Your task to perform on an android device: clear all cookies in the chrome app Image 0: 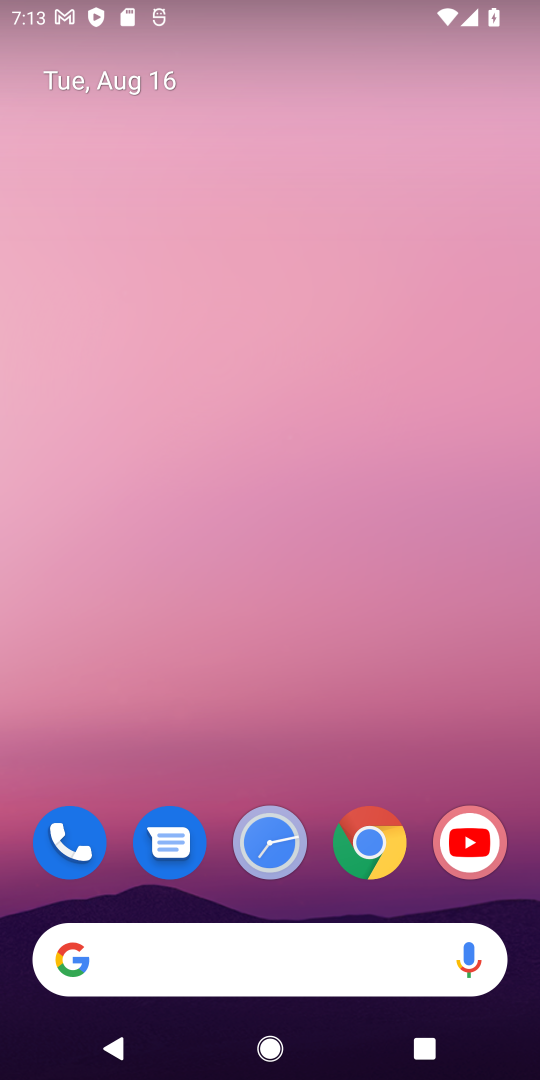
Step 0: press home button
Your task to perform on an android device: clear all cookies in the chrome app Image 1: 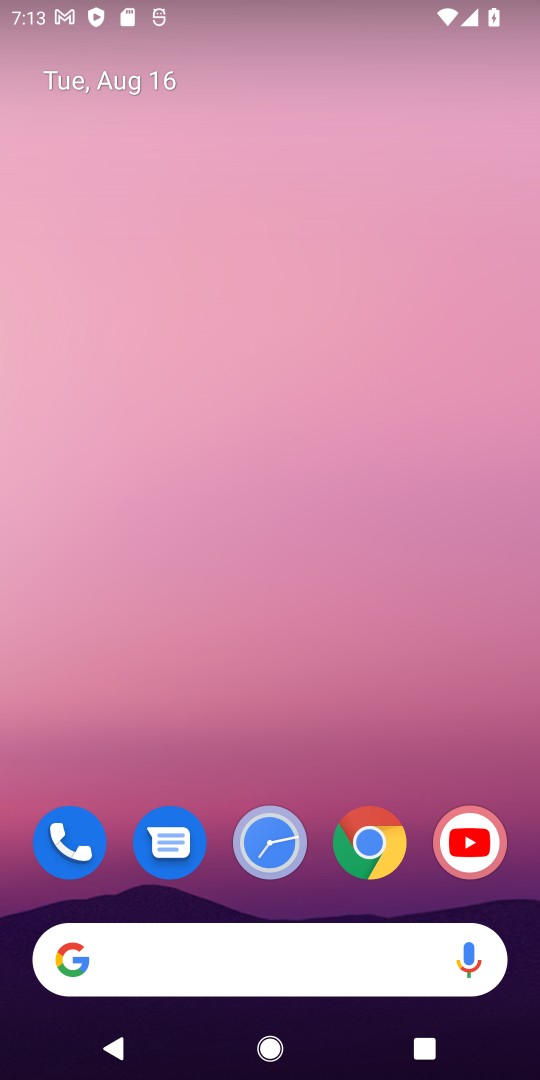
Step 1: drag from (317, 790) to (315, 2)
Your task to perform on an android device: clear all cookies in the chrome app Image 2: 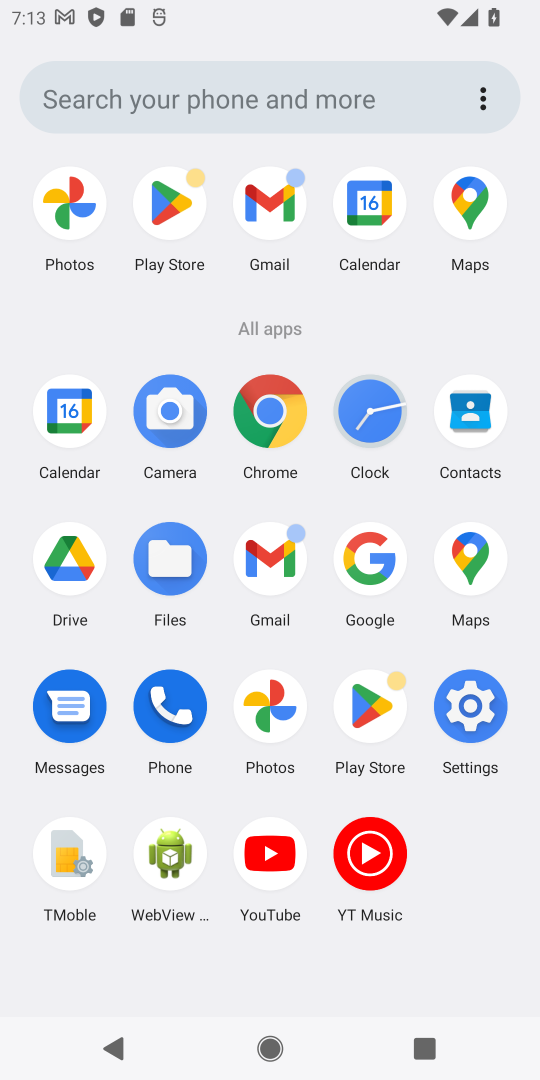
Step 2: click (269, 406)
Your task to perform on an android device: clear all cookies in the chrome app Image 3: 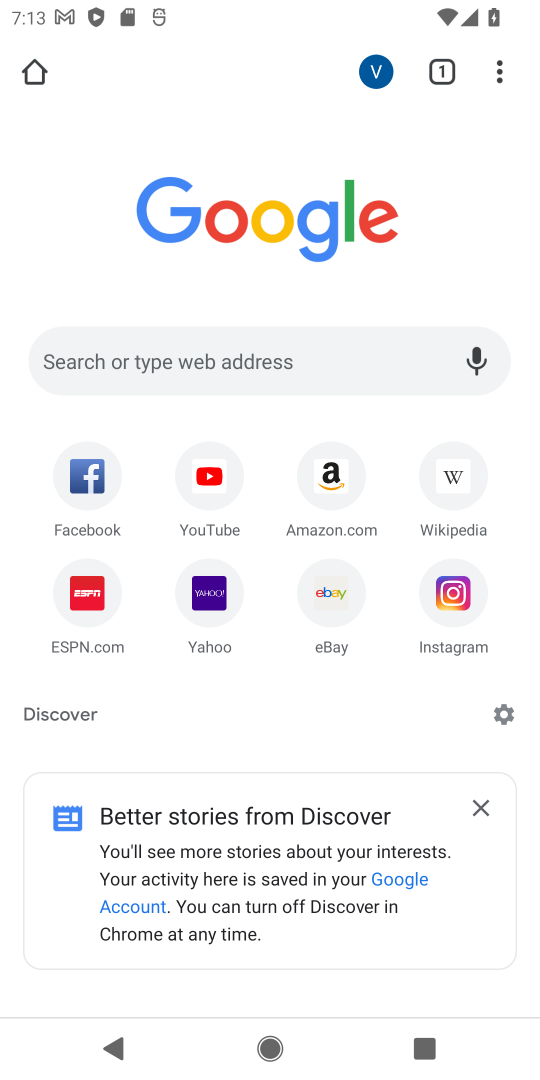
Step 3: click (501, 62)
Your task to perform on an android device: clear all cookies in the chrome app Image 4: 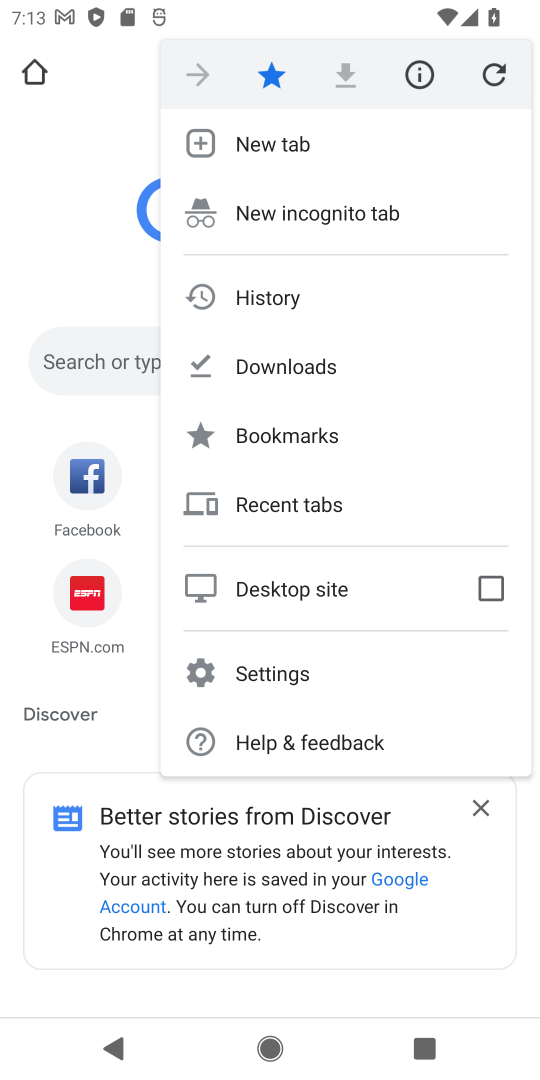
Step 4: click (305, 291)
Your task to perform on an android device: clear all cookies in the chrome app Image 5: 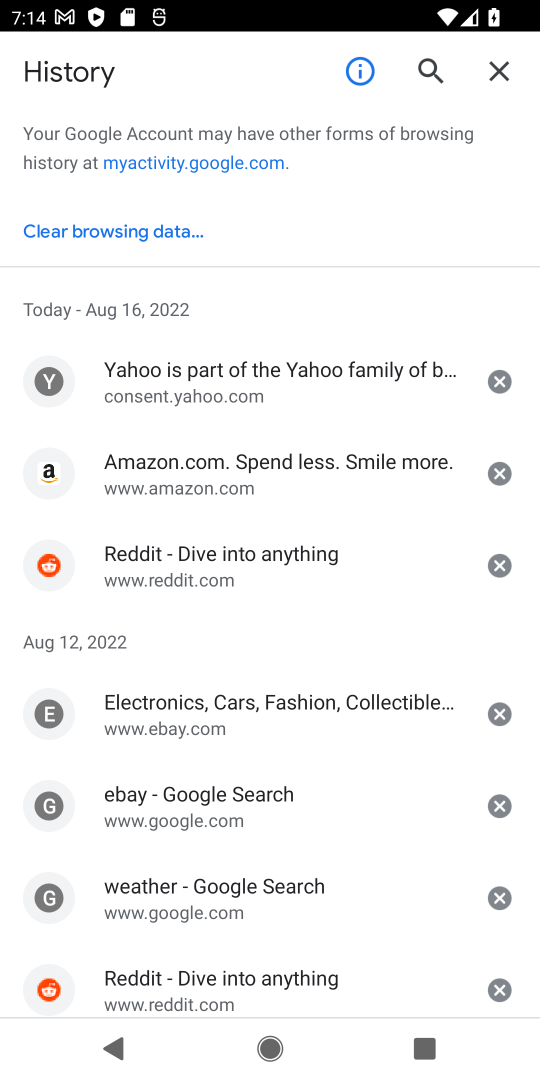
Step 5: click (89, 232)
Your task to perform on an android device: clear all cookies in the chrome app Image 6: 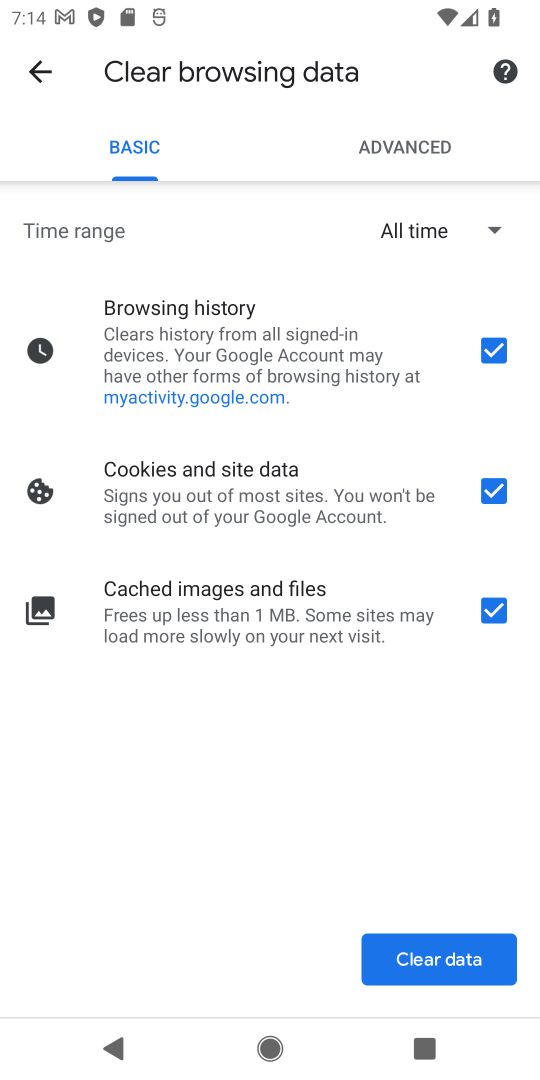
Step 6: click (497, 350)
Your task to perform on an android device: clear all cookies in the chrome app Image 7: 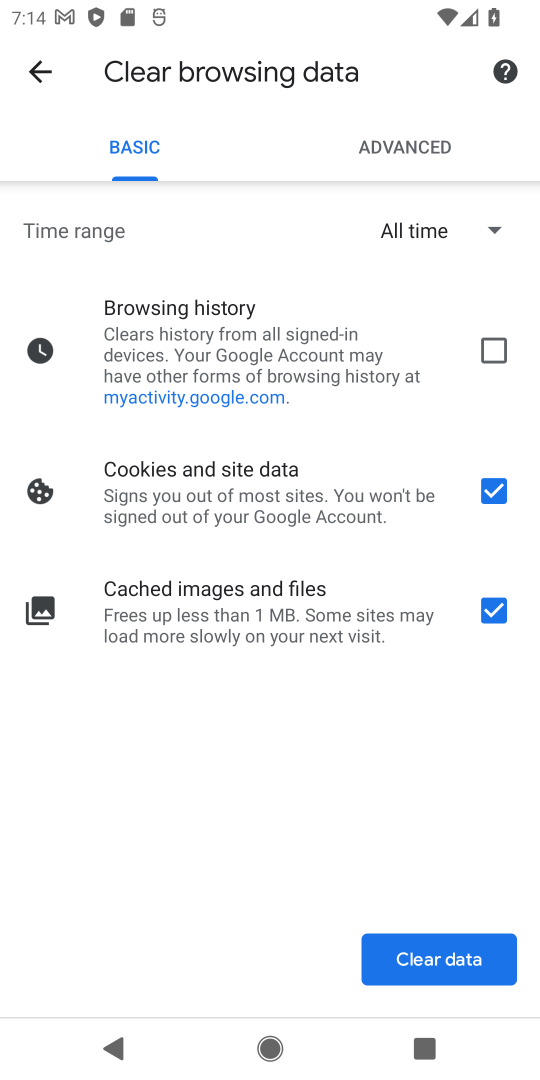
Step 7: click (499, 606)
Your task to perform on an android device: clear all cookies in the chrome app Image 8: 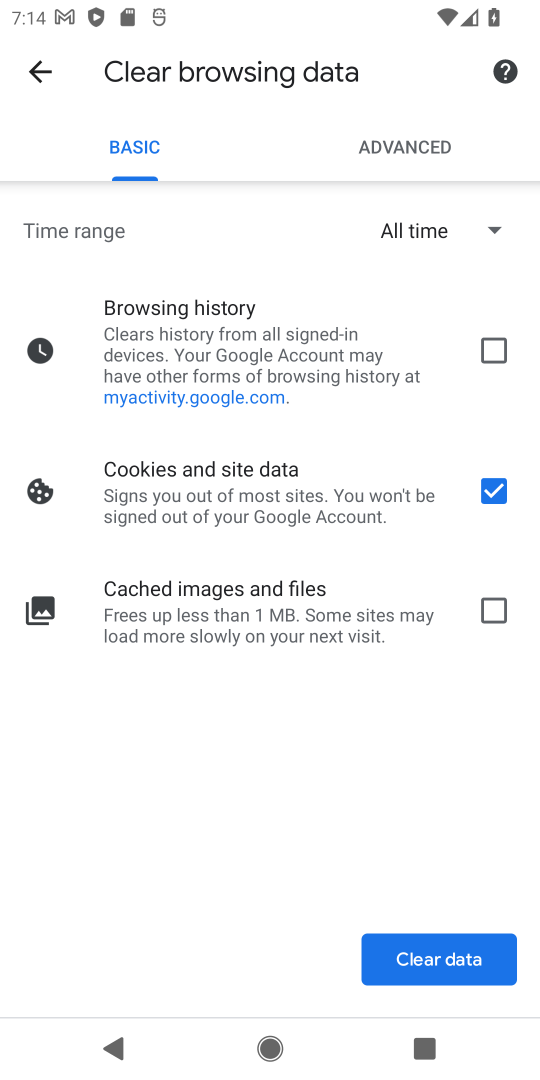
Step 8: click (436, 964)
Your task to perform on an android device: clear all cookies in the chrome app Image 9: 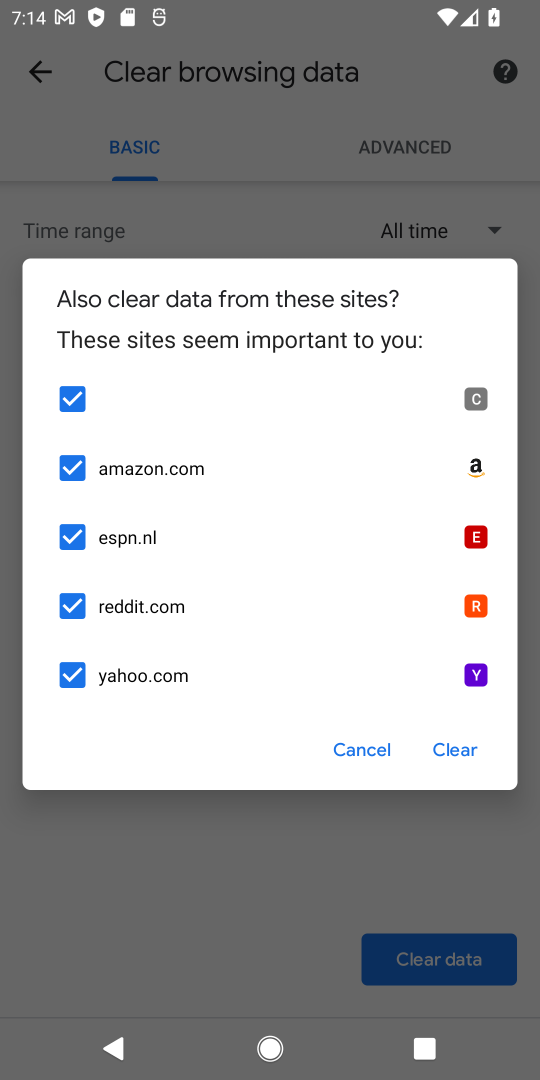
Step 9: click (453, 740)
Your task to perform on an android device: clear all cookies in the chrome app Image 10: 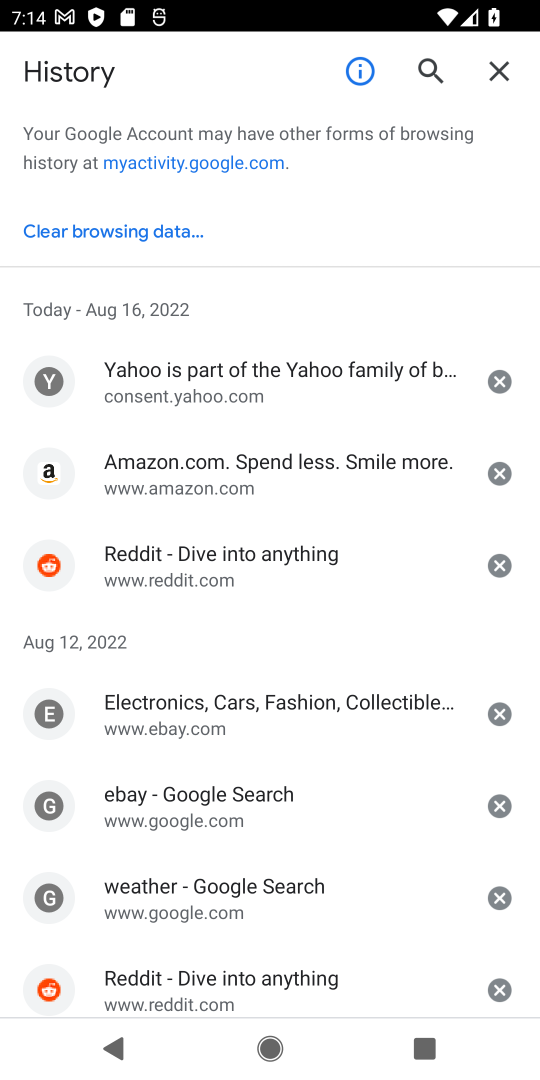
Step 10: task complete